Your task to perform on an android device: turn off data saver in the chrome app Image 0: 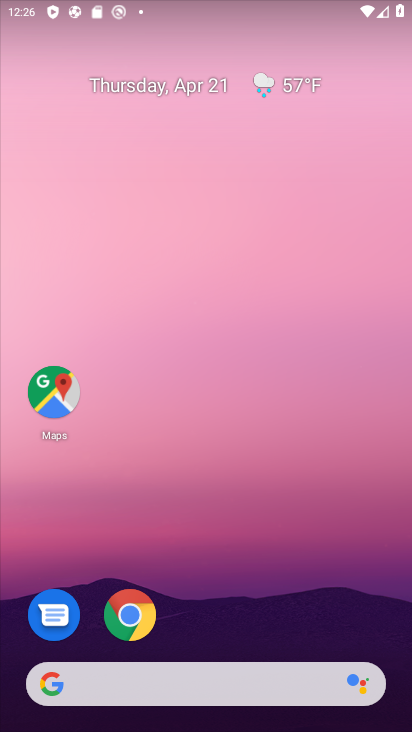
Step 0: click (146, 624)
Your task to perform on an android device: turn off data saver in the chrome app Image 1: 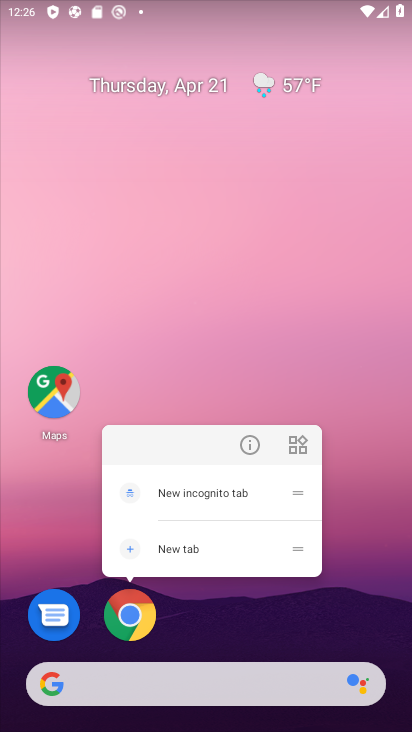
Step 1: click (111, 620)
Your task to perform on an android device: turn off data saver in the chrome app Image 2: 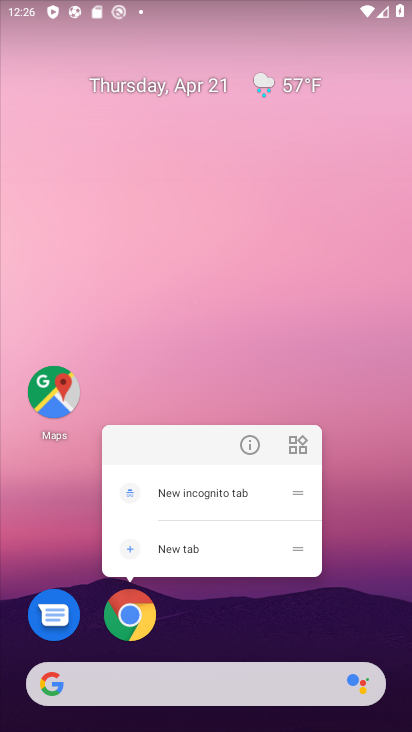
Step 2: click (135, 629)
Your task to perform on an android device: turn off data saver in the chrome app Image 3: 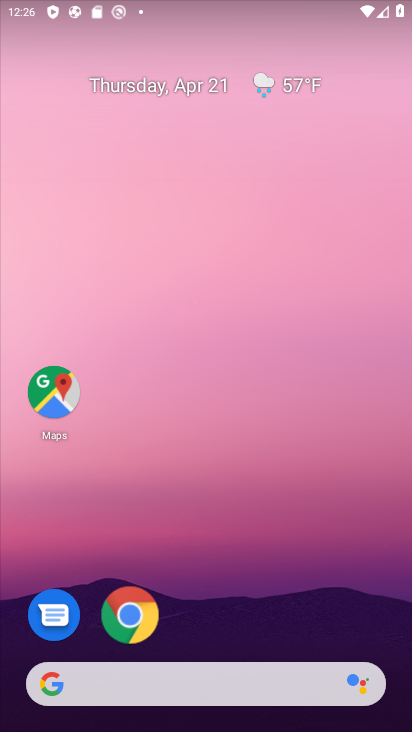
Step 3: click (146, 638)
Your task to perform on an android device: turn off data saver in the chrome app Image 4: 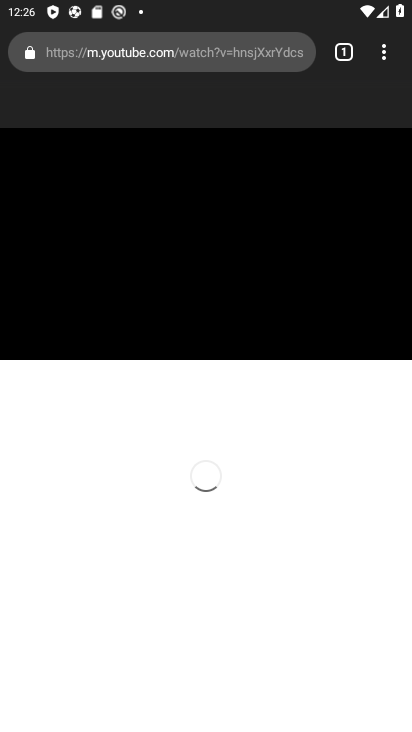
Step 4: click (390, 61)
Your task to perform on an android device: turn off data saver in the chrome app Image 5: 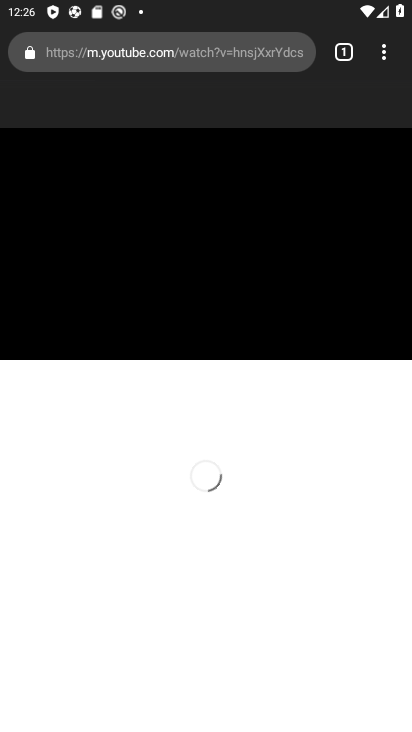
Step 5: click (379, 60)
Your task to perform on an android device: turn off data saver in the chrome app Image 6: 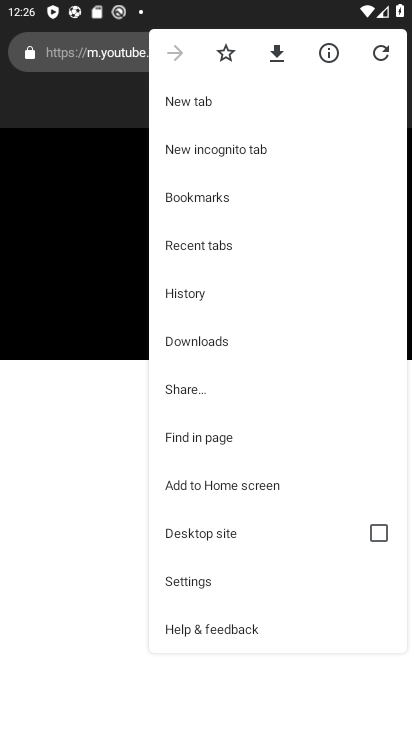
Step 6: click (204, 590)
Your task to perform on an android device: turn off data saver in the chrome app Image 7: 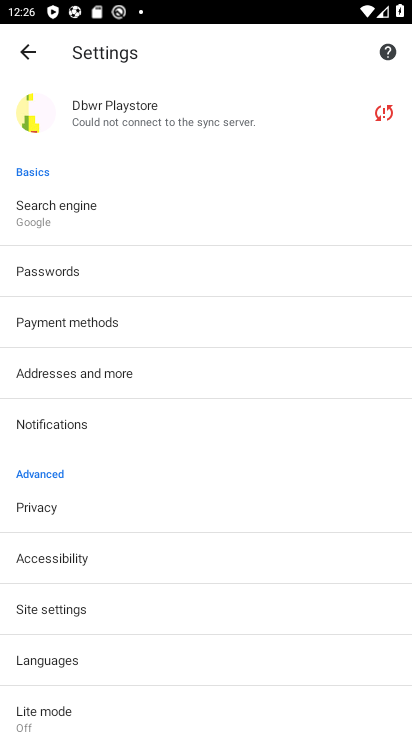
Step 7: click (38, 720)
Your task to perform on an android device: turn off data saver in the chrome app Image 8: 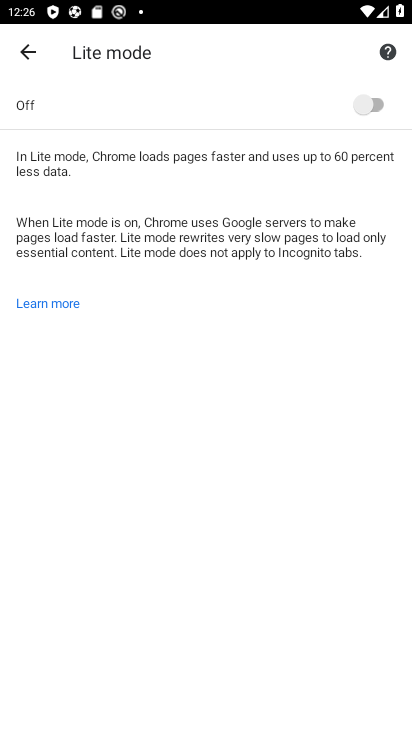
Step 8: task complete